Your task to perform on an android device: toggle location history Image 0: 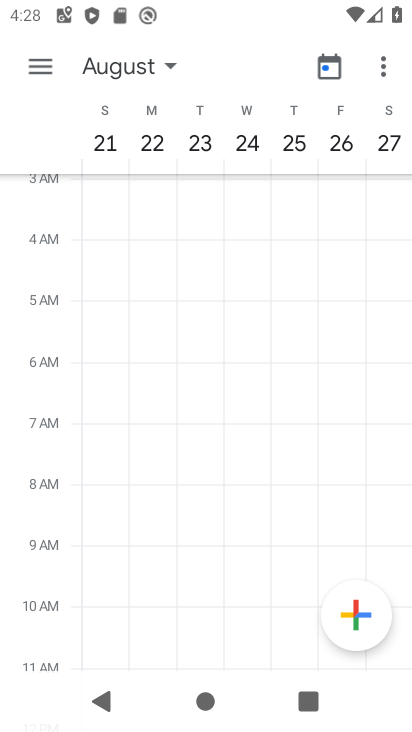
Step 0: press home button
Your task to perform on an android device: toggle location history Image 1: 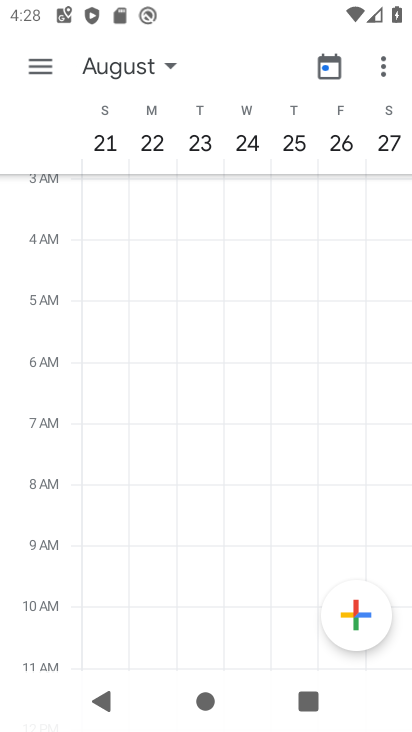
Step 1: press home button
Your task to perform on an android device: toggle location history Image 2: 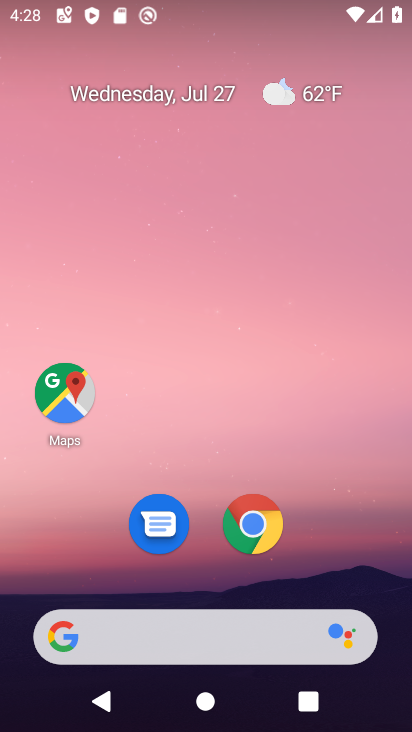
Step 2: drag from (312, 502) to (354, 45)
Your task to perform on an android device: toggle location history Image 3: 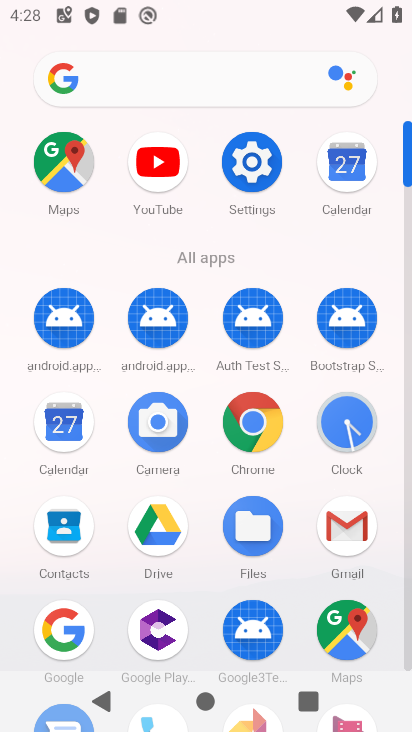
Step 3: click (259, 157)
Your task to perform on an android device: toggle location history Image 4: 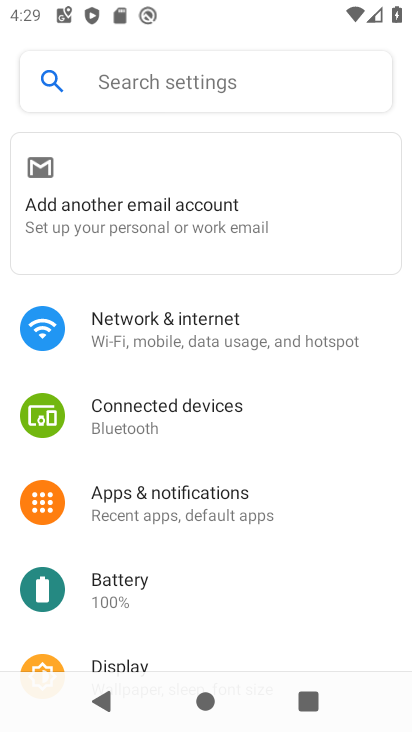
Step 4: drag from (189, 572) to (260, 22)
Your task to perform on an android device: toggle location history Image 5: 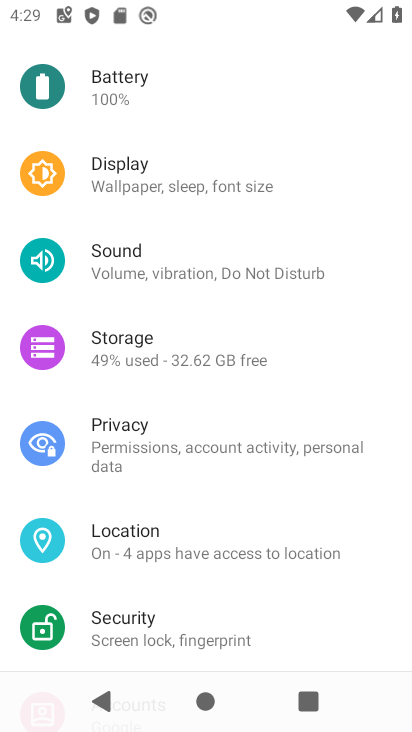
Step 5: click (207, 543)
Your task to perform on an android device: toggle location history Image 6: 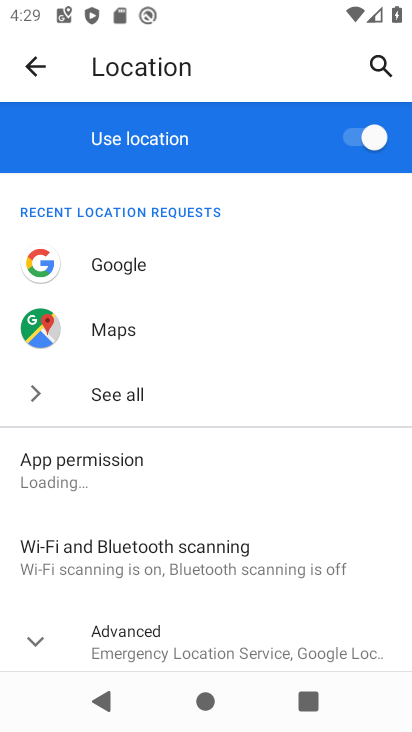
Step 6: drag from (229, 490) to (266, 95)
Your task to perform on an android device: toggle location history Image 7: 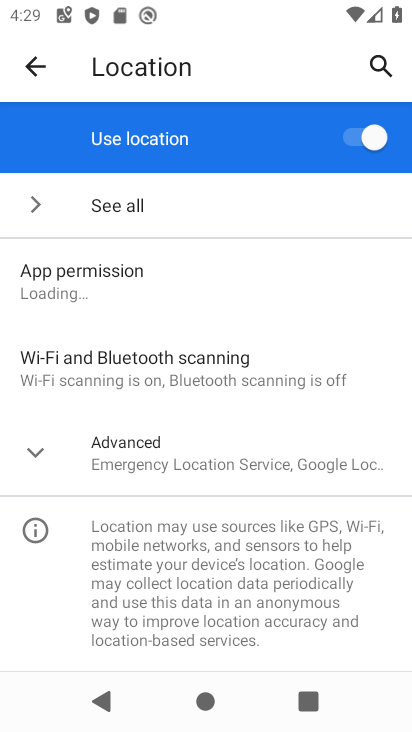
Step 7: click (33, 447)
Your task to perform on an android device: toggle location history Image 8: 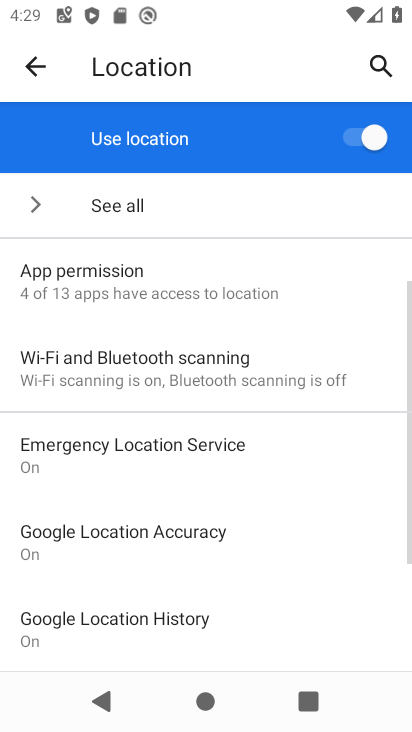
Step 8: drag from (263, 568) to (268, 237)
Your task to perform on an android device: toggle location history Image 9: 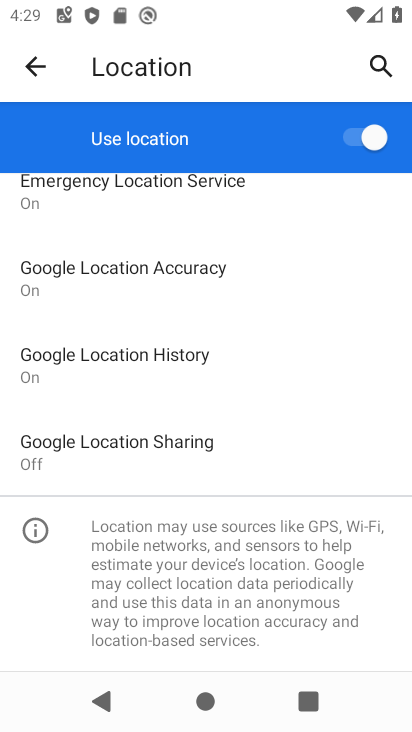
Step 9: click (192, 357)
Your task to perform on an android device: toggle location history Image 10: 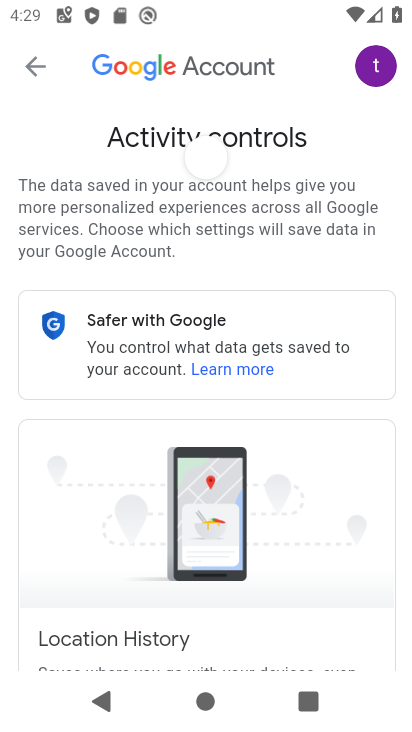
Step 10: drag from (316, 508) to (323, 137)
Your task to perform on an android device: toggle location history Image 11: 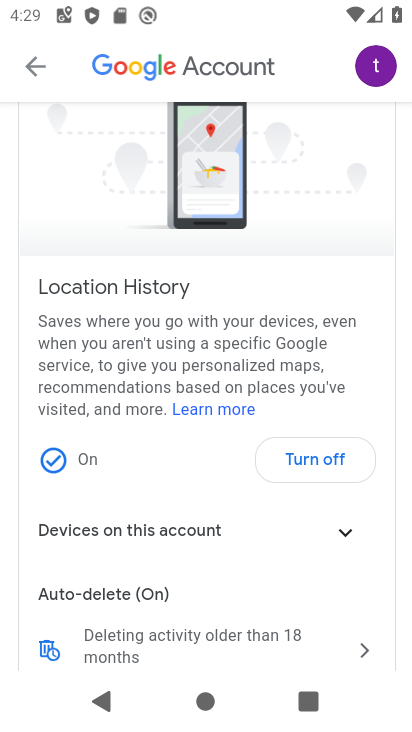
Step 11: click (311, 455)
Your task to perform on an android device: toggle location history Image 12: 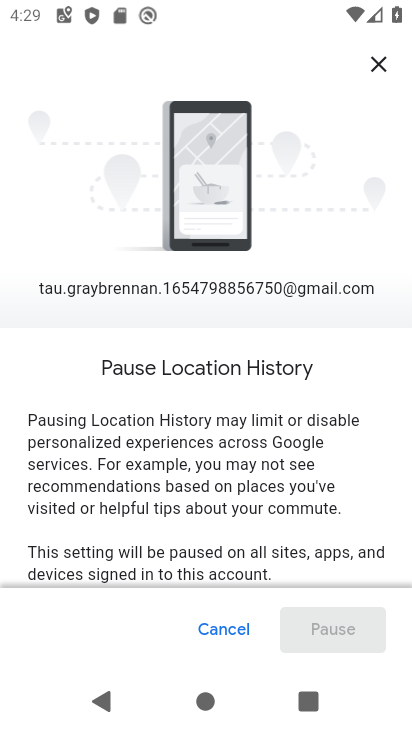
Step 12: drag from (217, 505) to (223, 46)
Your task to perform on an android device: toggle location history Image 13: 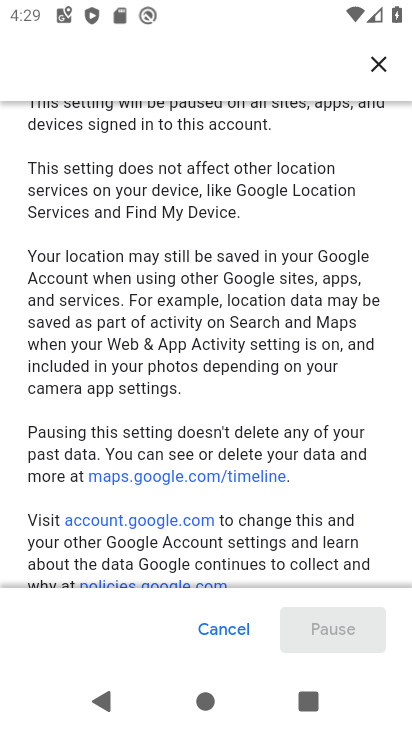
Step 13: drag from (264, 360) to (280, 23)
Your task to perform on an android device: toggle location history Image 14: 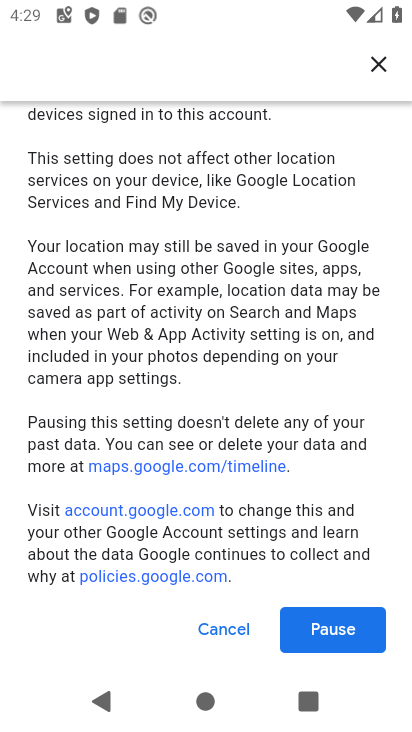
Step 14: click (333, 627)
Your task to perform on an android device: toggle location history Image 15: 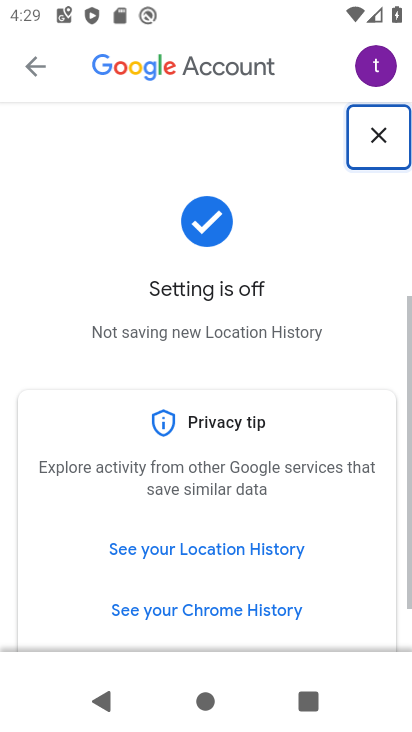
Step 15: click (357, 630)
Your task to perform on an android device: toggle location history Image 16: 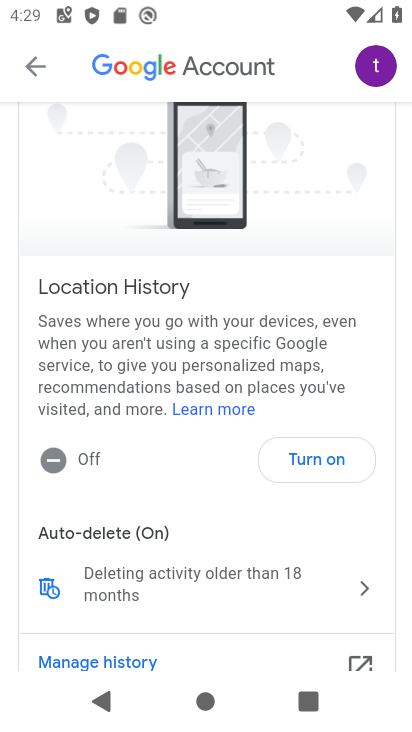
Step 16: task complete